Your task to perform on an android device: check google app version Image 0: 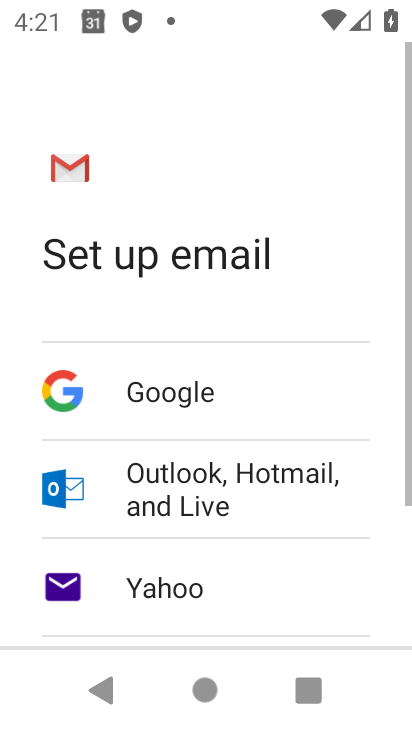
Step 0: press home button
Your task to perform on an android device: check google app version Image 1: 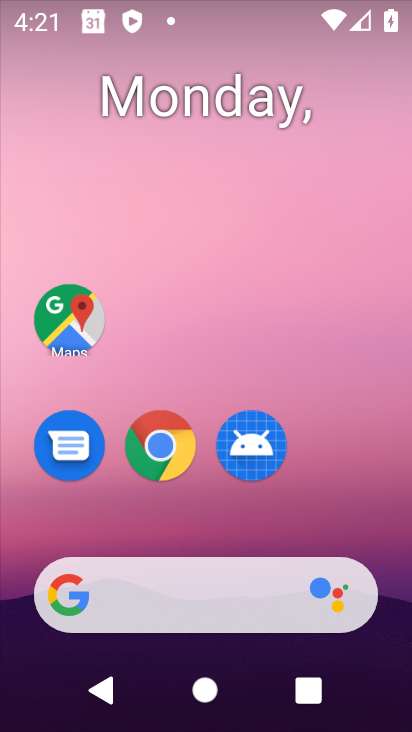
Step 1: drag from (324, 518) to (290, 24)
Your task to perform on an android device: check google app version Image 2: 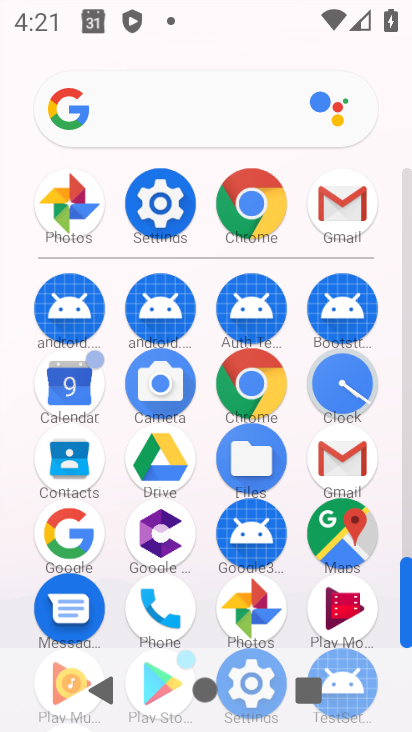
Step 2: click (56, 532)
Your task to perform on an android device: check google app version Image 3: 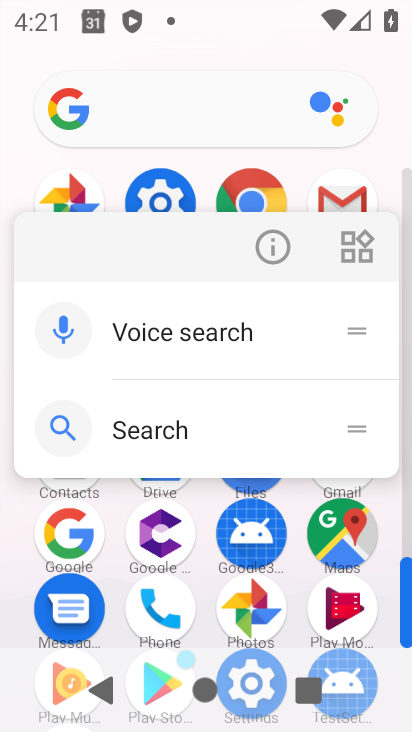
Step 3: click (292, 242)
Your task to perform on an android device: check google app version Image 4: 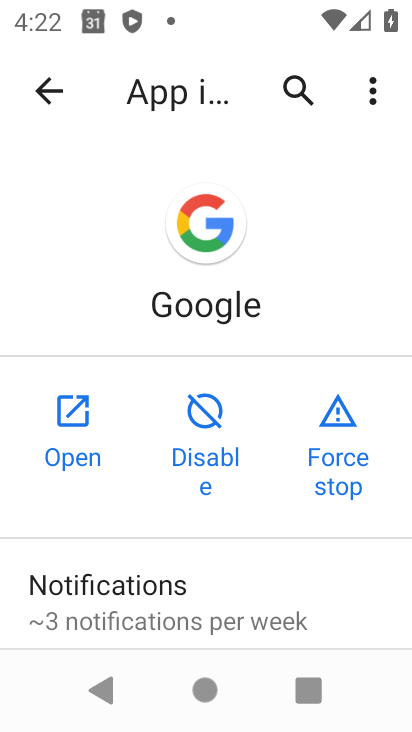
Step 4: drag from (203, 566) to (193, 166)
Your task to perform on an android device: check google app version Image 5: 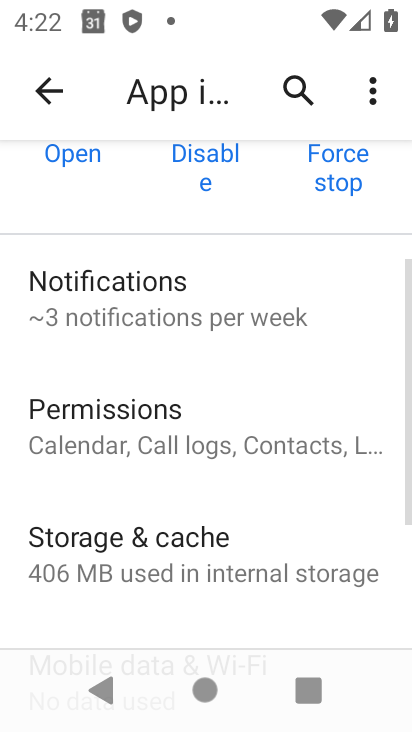
Step 5: drag from (315, 642) to (272, 208)
Your task to perform on an android device: check google app version Image 6: 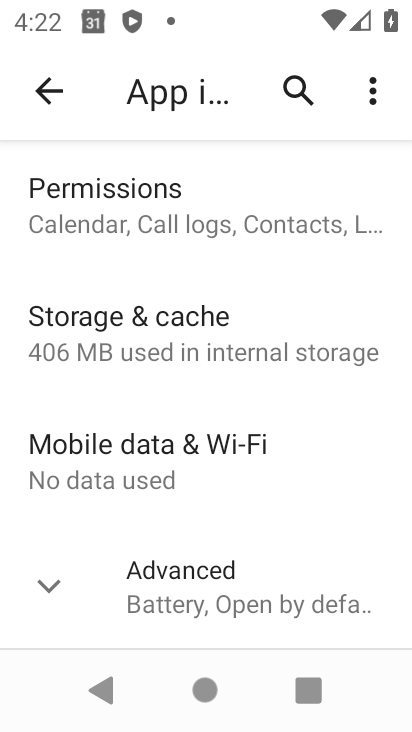
Step 6: drag from (260, 570) to (244, 169)
Your task to perform on an android device: check google app version Image 7: 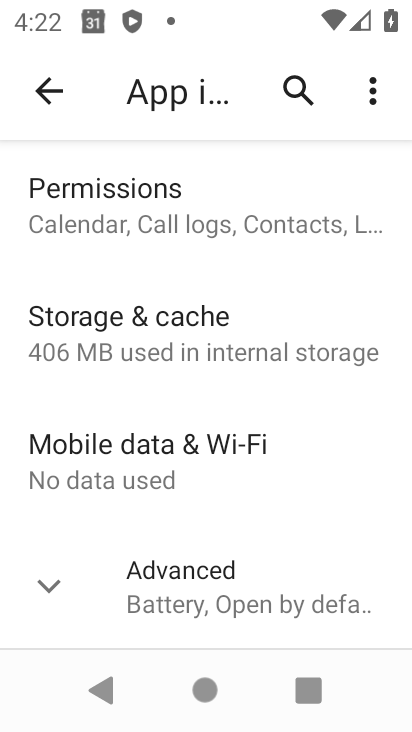
Step 7: click (194, 585)
Your task to perform on an android device: check google app version Image 8: 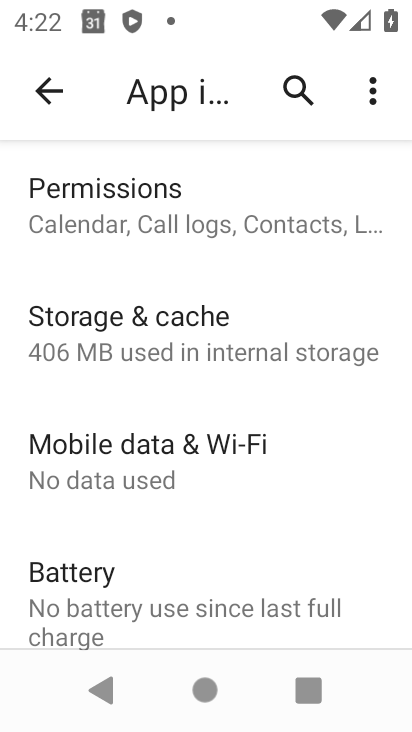
Step 8: task complete